Your task to perform on an android device: turn off location Image 0: 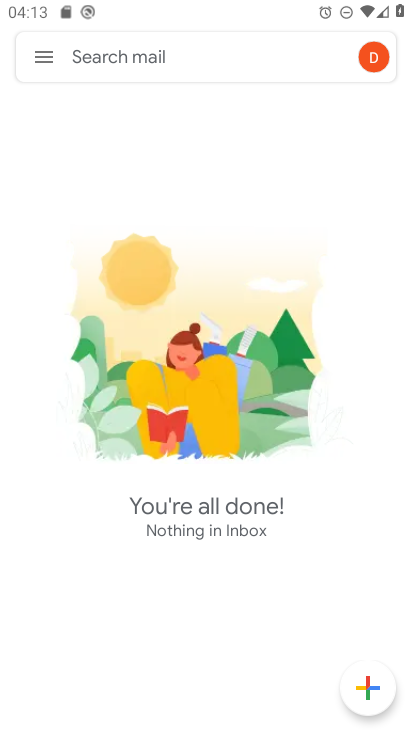
Step 0: press home button
Your task to perform on an android device: turn off location Image 1: 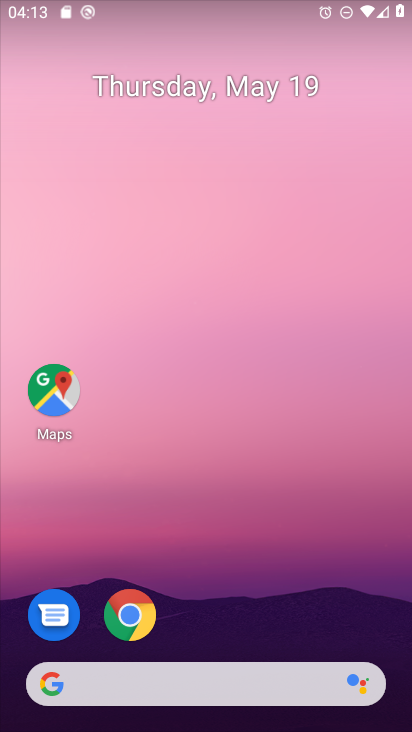
Step 1: drag from (260, 579) to (252, 47)
Your task to perform on an android device: turn off location Image 2: 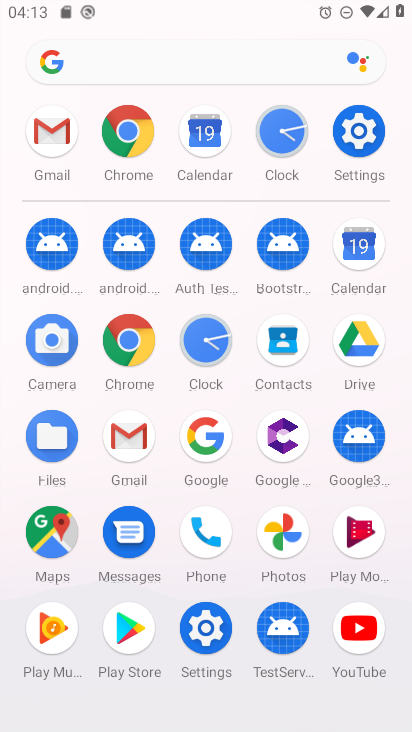
Step 2: click (366, 139)
Your task to perform on an android device: turn off location Image 3: 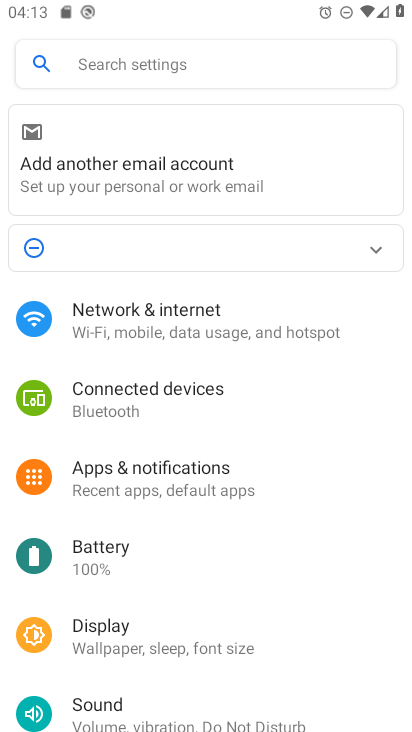
Step 3: drag from (248, 655) to (282, 137)
Your task to perform on an android device: turn off location Image 4: 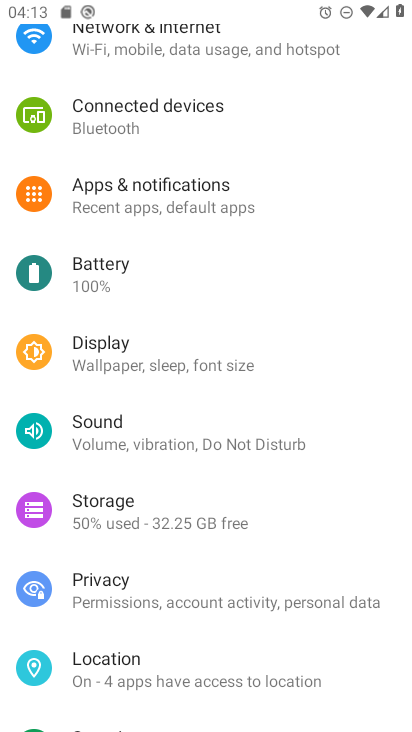
Step 4: click (196, 666)
Your task to perform on an android device: turn off location Image 5: 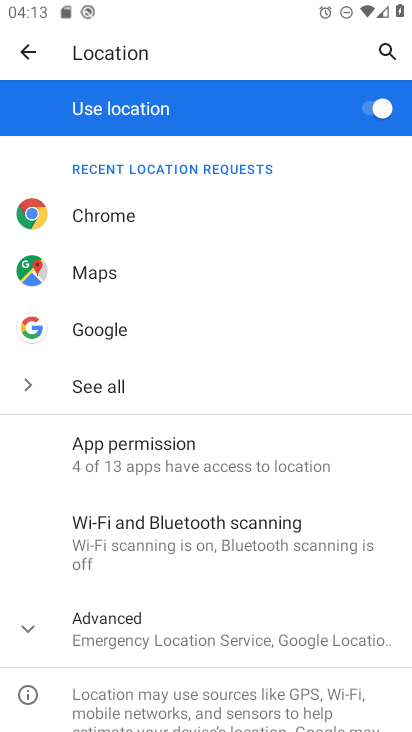
Step 5: click (376, 117)
Your task to perform on an android device: turn off location Image 6: 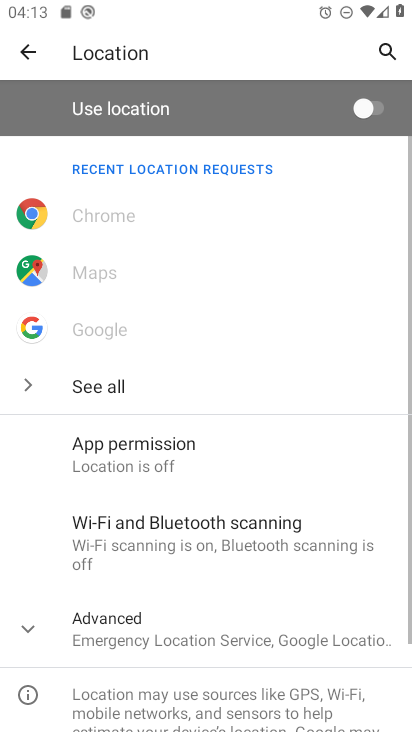
Step 6: task complete